Your task to perform on an android device: check the backup settings in the google photos Image 0: 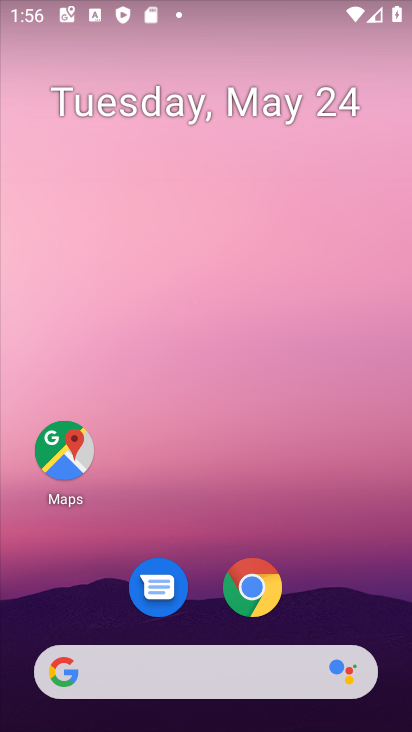
Step 0: drag from (315, 709) to (262, 189)
Your task to perform on an android device: check the backup settings in the google photos Image 1: 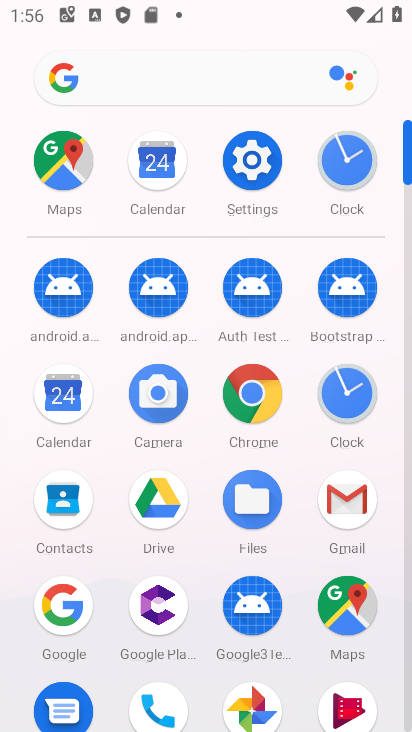
Step 1: click (256, 688)
Your task to perform on an android device: check the backup settings in the google photos Image 2: 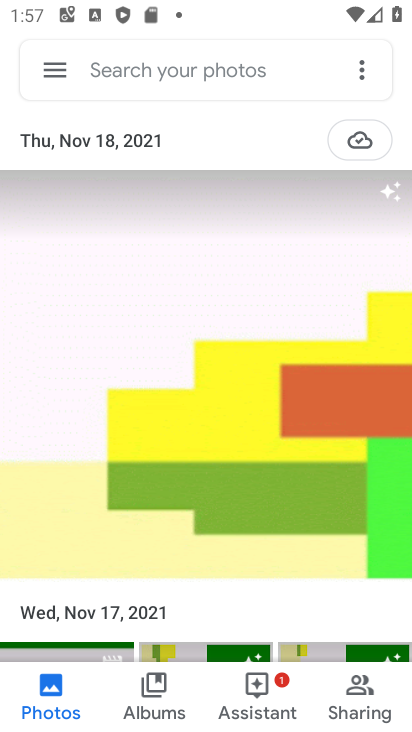
Step 2: click (372, 64)
Your task to perform on an android device: check the backup settings in the google photos Image 3: 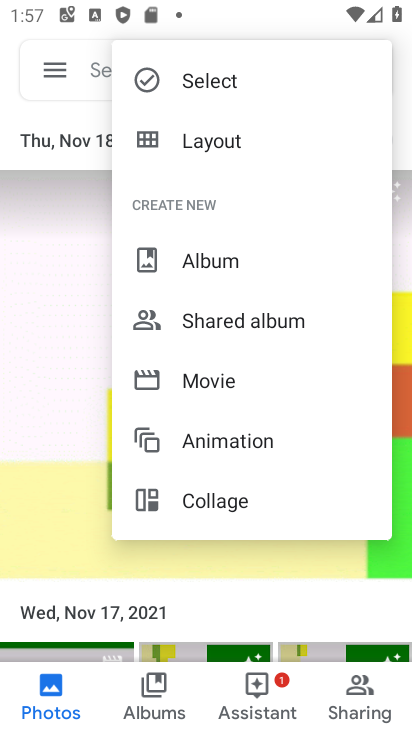
Step 3: click (70, 67)
Your task to perform on an android device: check the backup settings in the google photos Image 4: 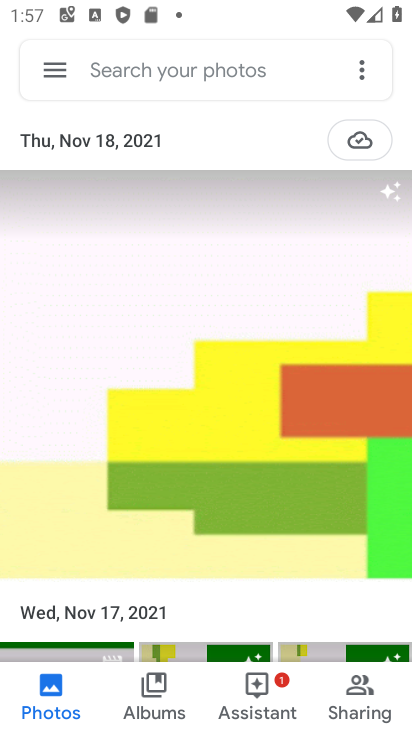
Step 4: click (64, 70)
Your task to perform on an android device: check the backup settings in the google photos Image 5: 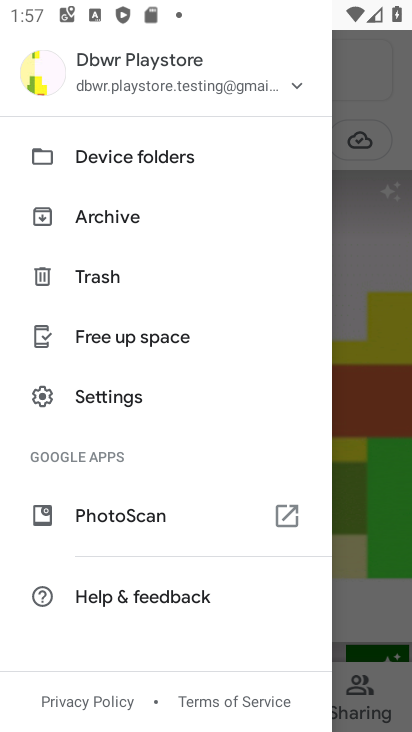
Step 5: click (149, 384)
Your task to perform on an android device: check the backup settings in the google photos Image 6: 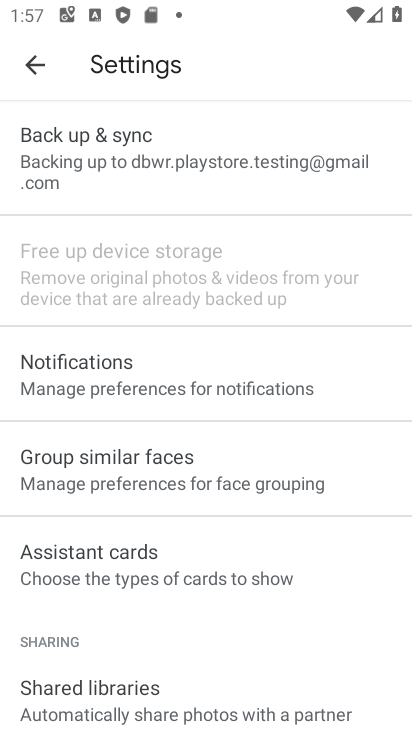
Step 6: click (256, 146)
Your task to perform on an android device: check the backup settings in the google photos Image 7: 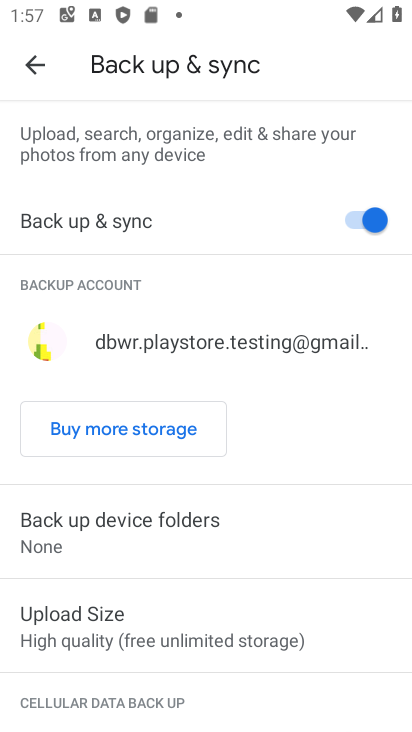
Step 7: task complete